Your task to perform on an android device: turn on wifi Image 0: 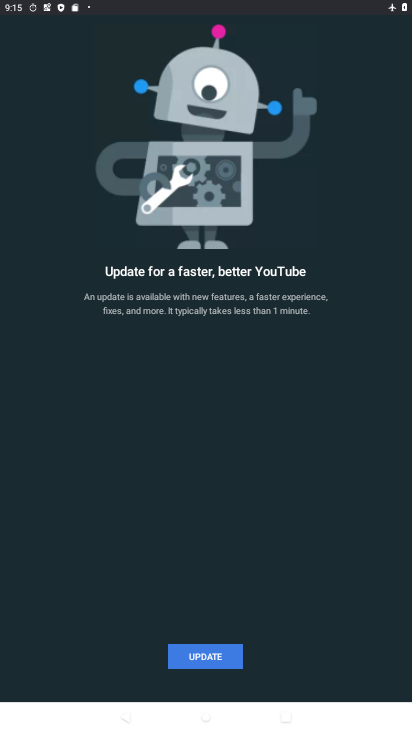
Step 0: press home button
Your task to perform on an android device: turn on wifi Image 1: 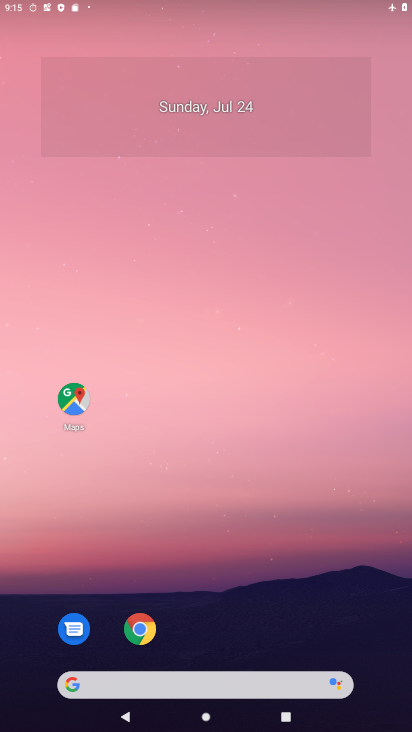
Step 1: drag from (241, 674) to (314, 33)
Your task to perform on an android device: turn on wifi Image 2: 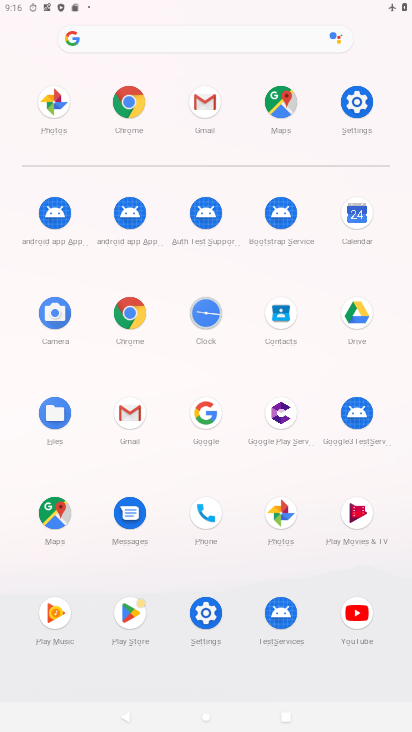
Step 2: click (347, 125)
Your task to perform on an android device: turn on wifi Image 3: 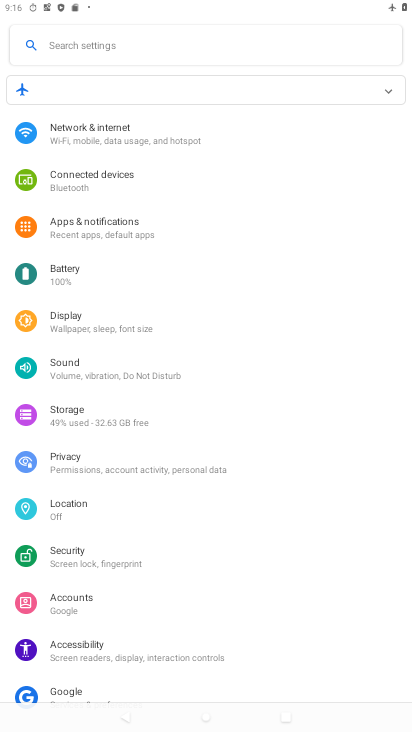
Step 3: click (123, 126)
Your task to perform on an android device: turn on wifi Image 4: 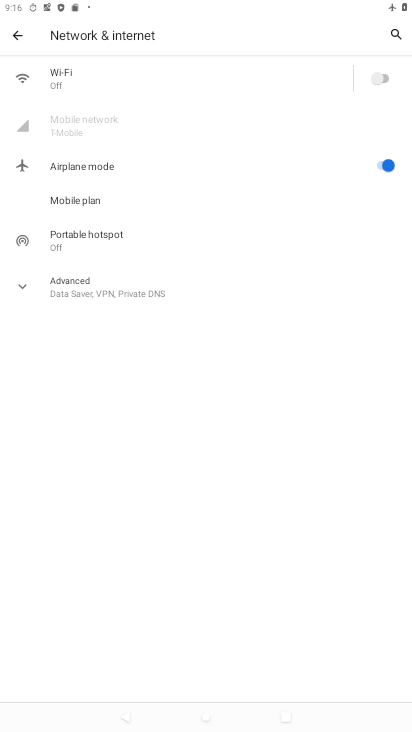
Step 4: click (393, 76)
Your task to perform on an android device: turn on wifi Image 5: 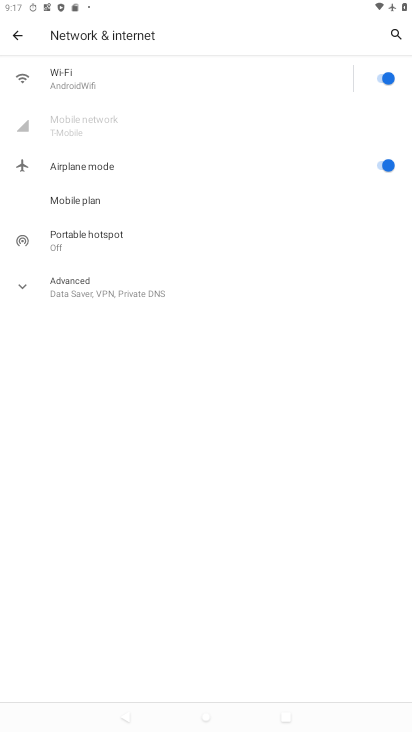
Step 5: task complete